Your task to perform on an android device: open chrome privacy settings Image 0: 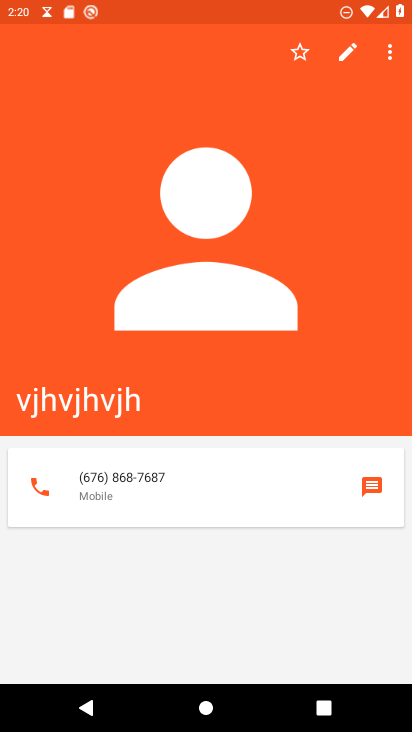
Step 0: press home button
Your task to perform on an android device: open chrome privacy settings Image 1: 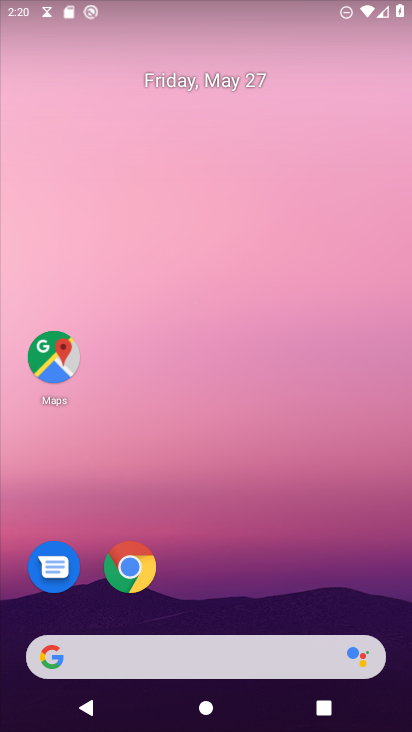
Step 1: click (140, 572)
Your task to perform on an android device: open chrome privacy settings Image 2: 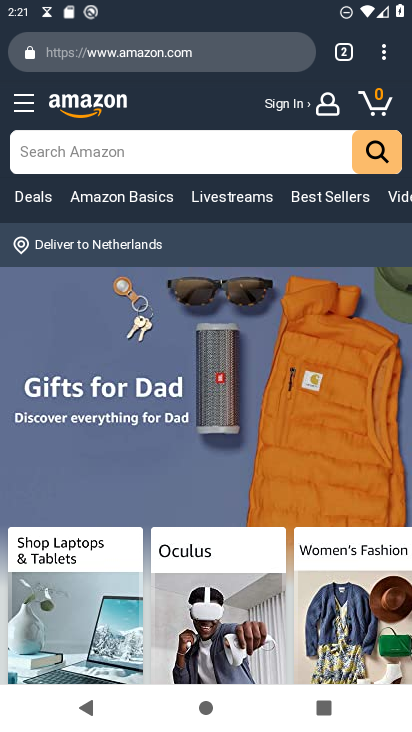
Step 2: click (387, 50)
Your task to perform on an android device: open chrome privacy settings Image 3: 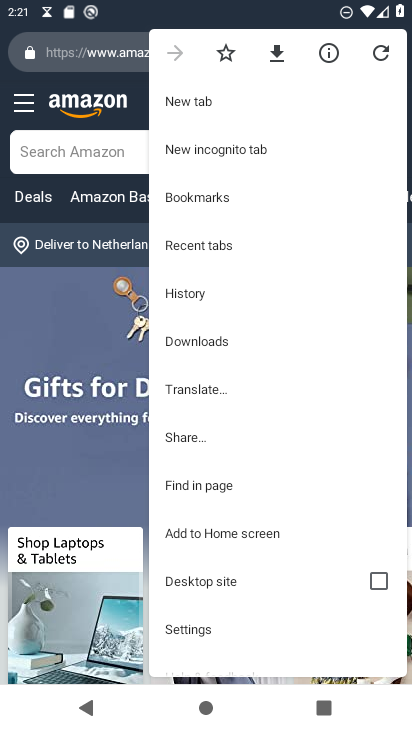
Step 3: click (217, 630)
Your task to perform on an android device: open chrome privacy settings Image 4: 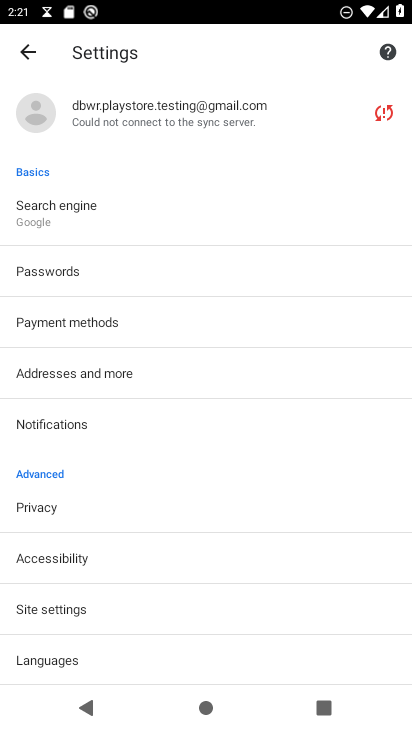
Step 4: click (135, 518)
Your task to perform on an android device: open chrome privacy settings Image 5: 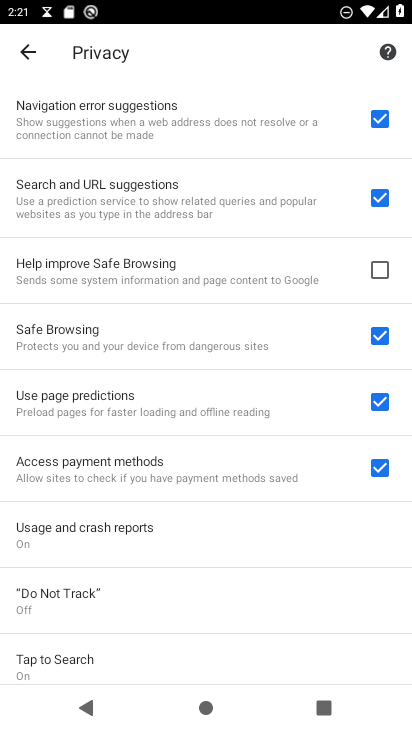
Step 5: task complete